Your task to perform on an android device: turn off notifications in google photos Image 0: 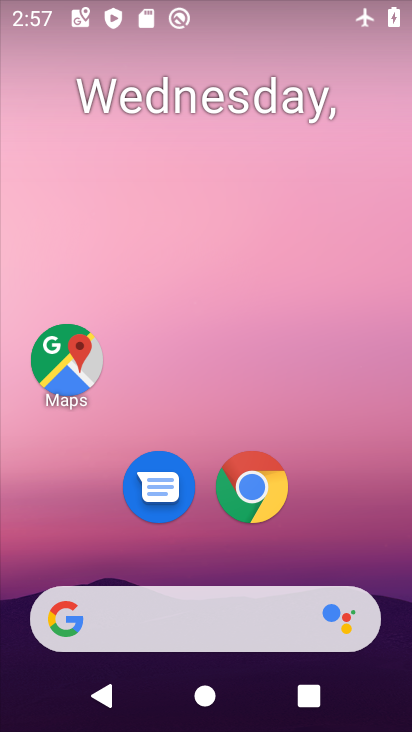
Step 0: drag from (336, 525) to (310, 57)
Your task to perform on an android device: turn off notifications in google photos Image 1: 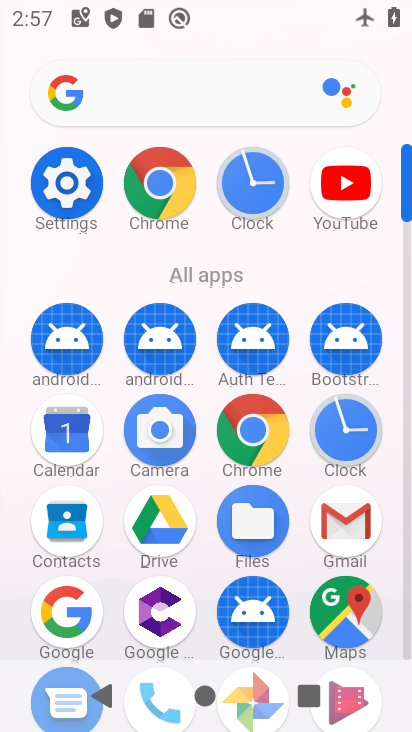
Step 1: click (72, 186)
Your task to perform on an android device: turn off notifications in google photos Image 2: 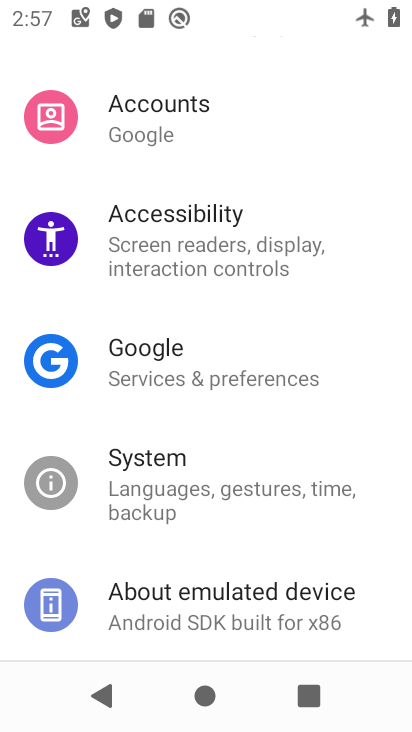
Step 2: drag from (240, 197) to (294, 608)
Your task to perform on an android device: turn off notifications in google photos Image 3: 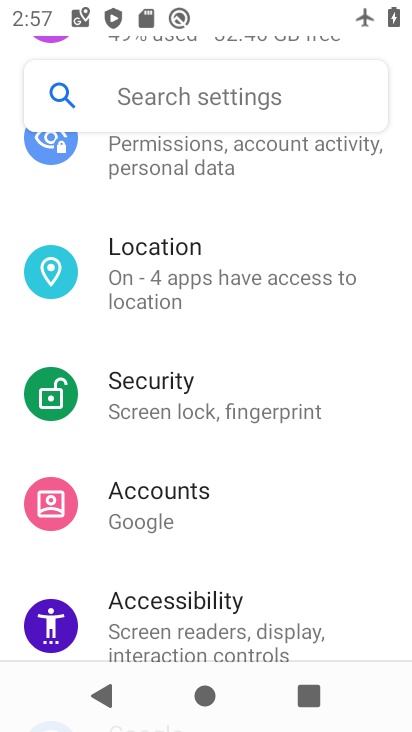
Step 3: drag from (188, 242) to (214, 590)
Your task to perform on an android device: turn off notifications in google photos Image 4: 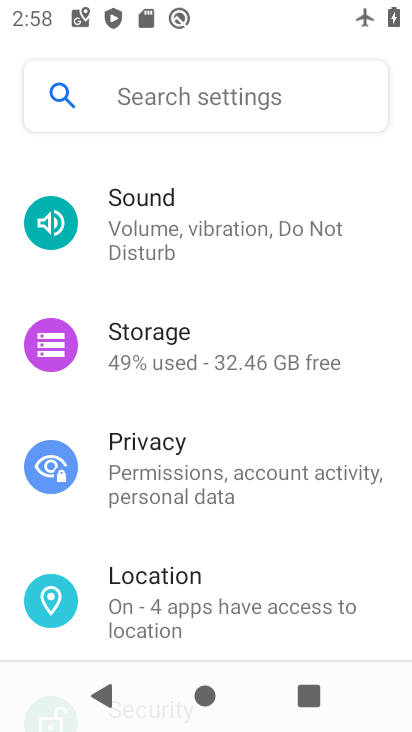
Step 4: drag from (203, 186) to (249, 534)
Your task to perform on an android device: turn off notifications in google photos Image 5: 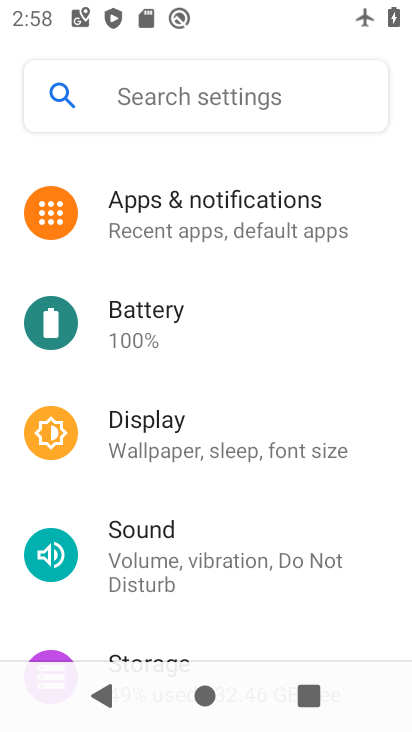
Step 5: click (277, 224)
Your task to perform on an android device: turn off notifications in google photos Image 6: 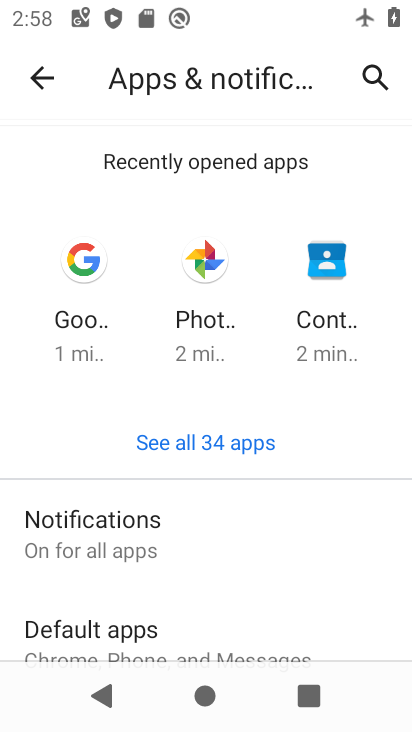
Step 6: click (196, 263)
Your task to perform on an android device: turn off notifications in google photos Image 7: 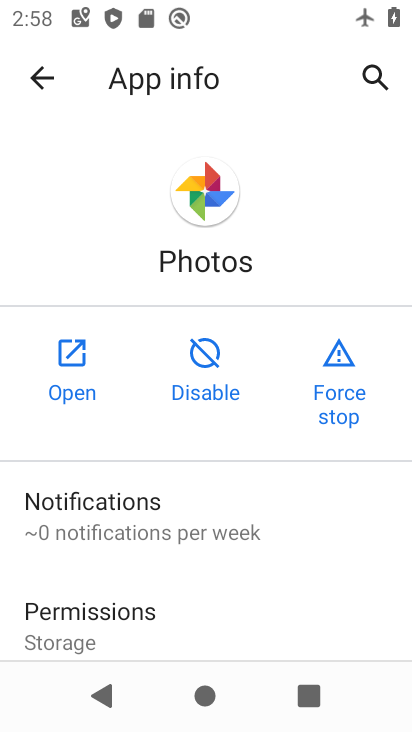
Step 7: click (173, 508)
Your task to perform on an android device: turn off notifications in google photos Image 8: 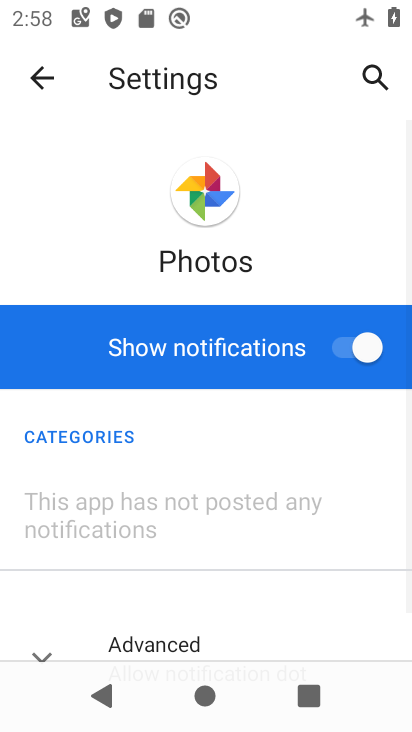
Step 8: click (353, 345)
Your task to perform on an android device: turn off notifications in google photos Image 9: 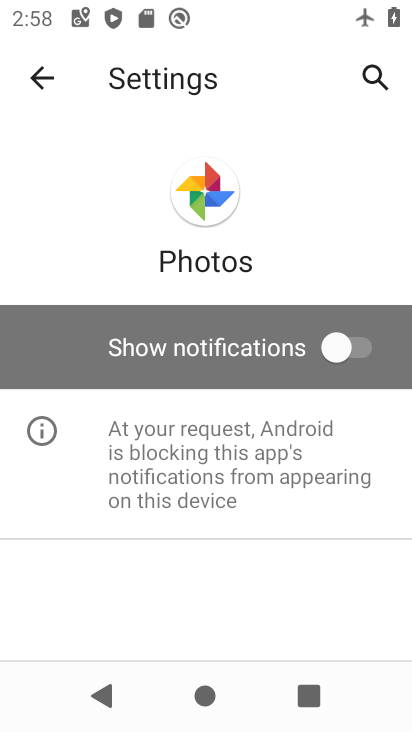
Step 9: task complete